Your task to perform on an android device: Open CNN.com Image 0: 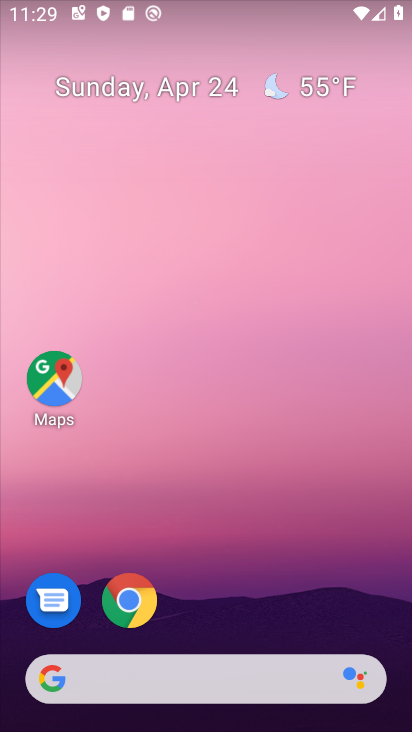
Step 0: click (244, 687)
Your task to perform on an android device: Open CNN.com Image 1: 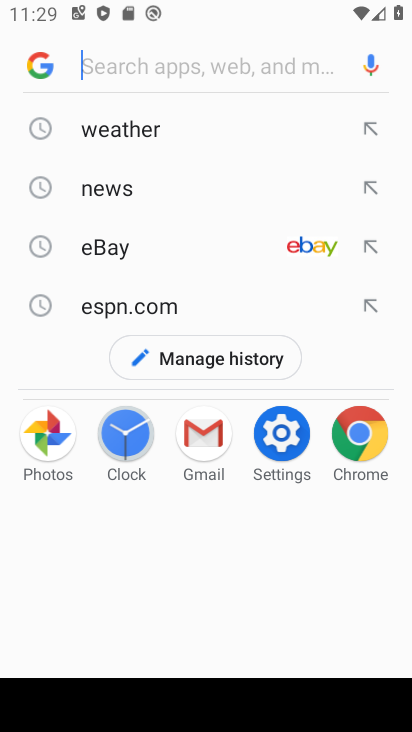
Step 1: click (160, 75)
Your task to perform on an android device: Open CNN.com Image 2: 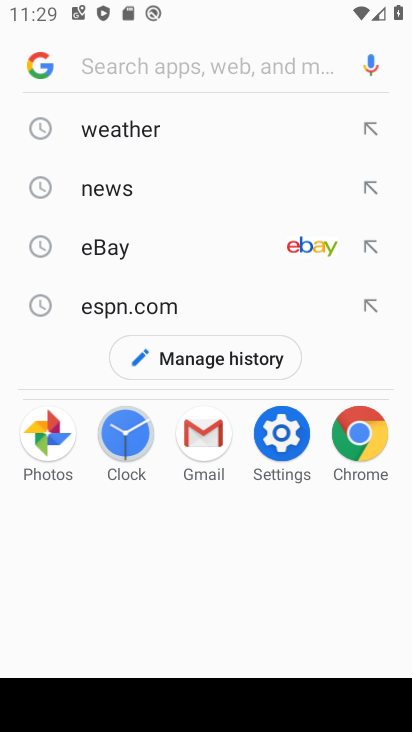
Step 2: type "cnn.com"
Your task to perform on an android device: Open CNN.com Image 3: 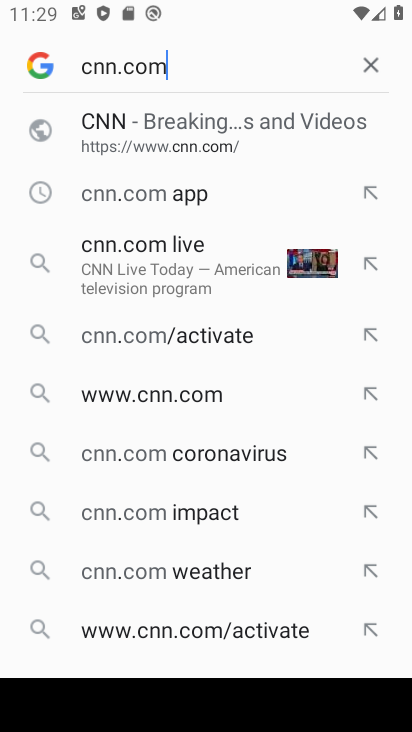
Step 3: click (267, 126)
Your task to perform on an android device: Open CNN.com Image 4: 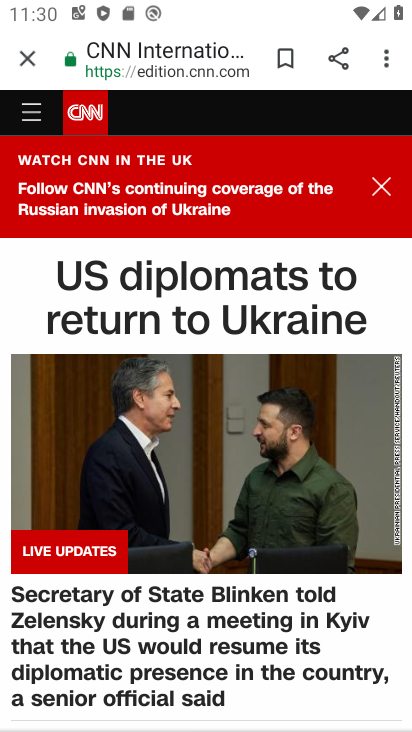
Step 4: task complete